Your task to perform on an android device: install app "Airtel Thanks" Image 0: 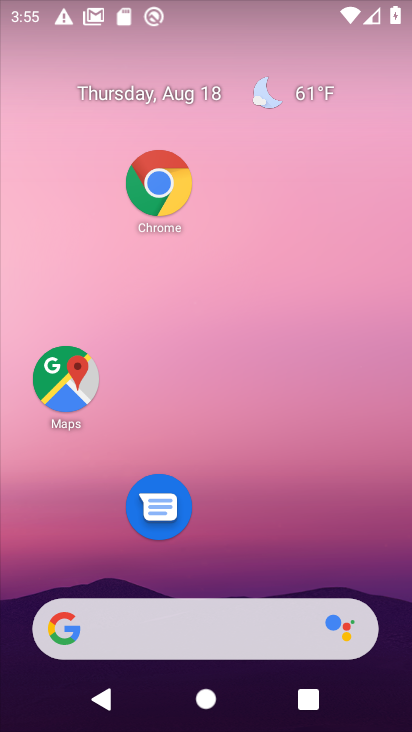
Step 0: drag from (254, 557) to (330, 69)
Your task to perform on an android device: install app "Airtel Thanks" Image 1: 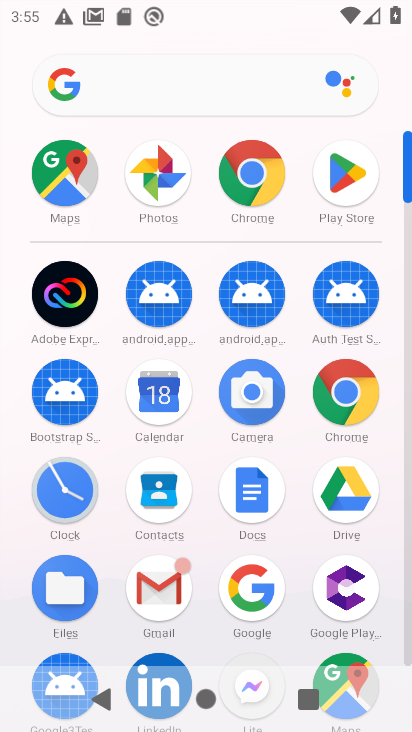
Step 1: click (341, 171)
Your task to perform on an android device: install app "Airtel Thanks" Image 2: 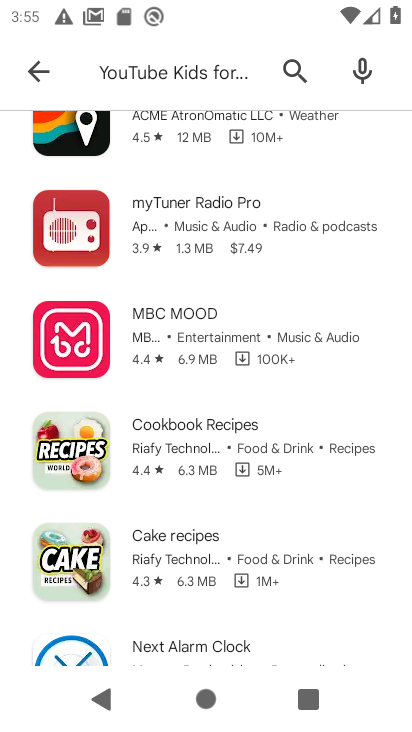
Step 2: click (275, 65)
Your task to perform on an android device: install app "Airtel Thanks" Image 3: 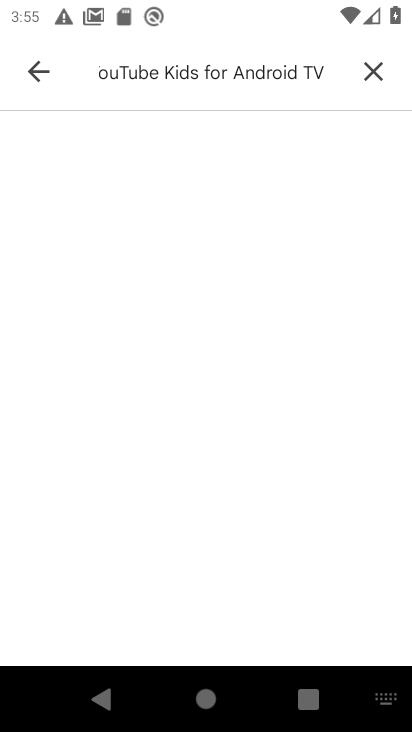
Step 3: click (367, 68)
Your task to perform on an android device: install app "Airtel Thanks" Image 4: 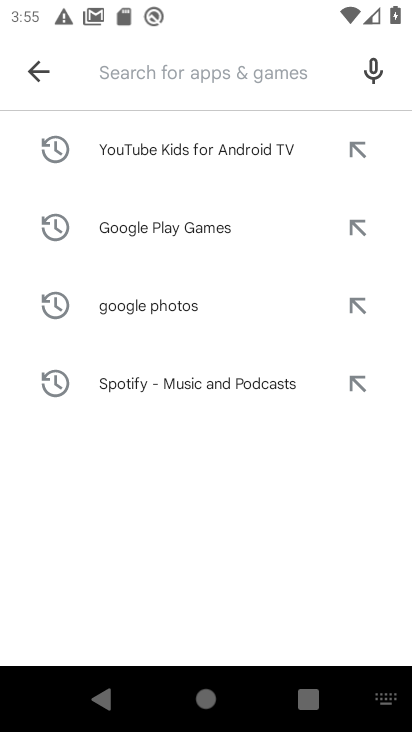
Step 4: click (160, 69)
Your task to perform on an android device: install app "Airtel Thanks" Image 5: 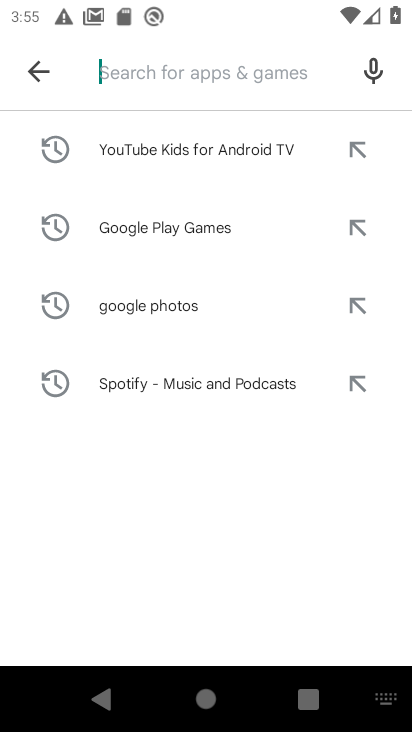
Step 5: type "Airtel Thanks"
Your task to perform on an android device: install app "Airtel Thanks" Image 6: 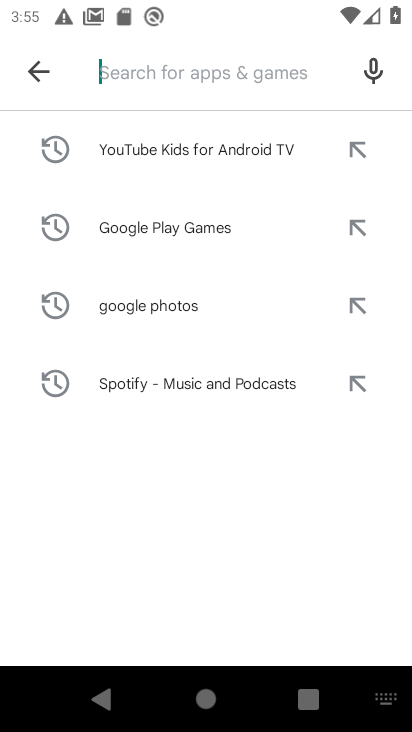
Step 6: click (176, 480)
Your task to perform on an android device: install app "Airtel Thanks" Image 7: 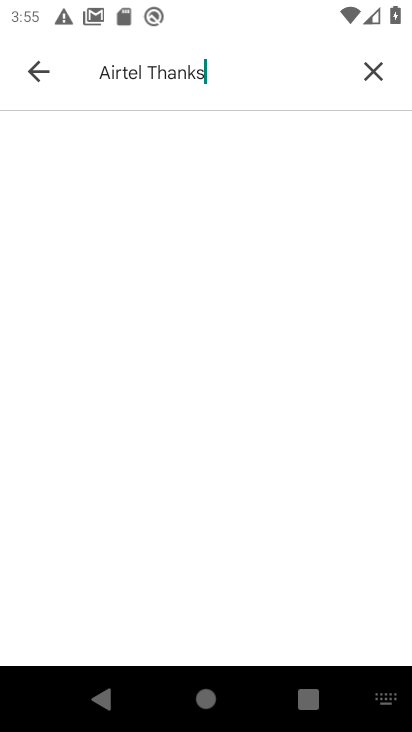
Step 7: task complete